Your task to perform on an android device: uninstall "Life360: Find Family & Friends" Image 0: 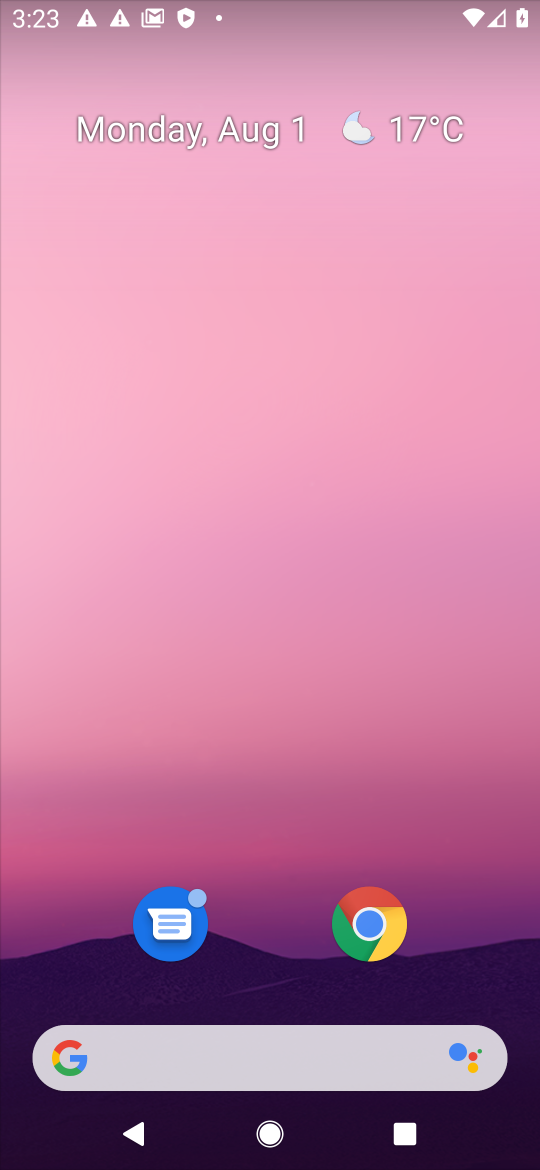
Step 0: drag from (314, 1151) to (317, 13)
Your task to perform on an android device: uninstall "Life360: Find Family & Friends" Image 1: 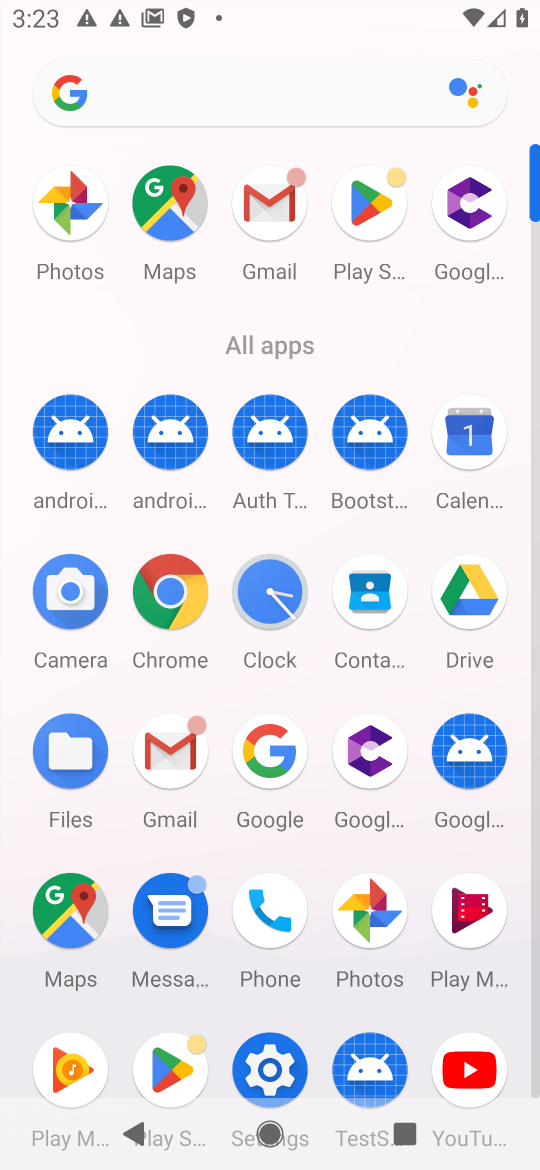
Step 1: click (367, 197)
Your task to perform on an android device: uninstall "Life360: Find Family & Friends" Image 2: 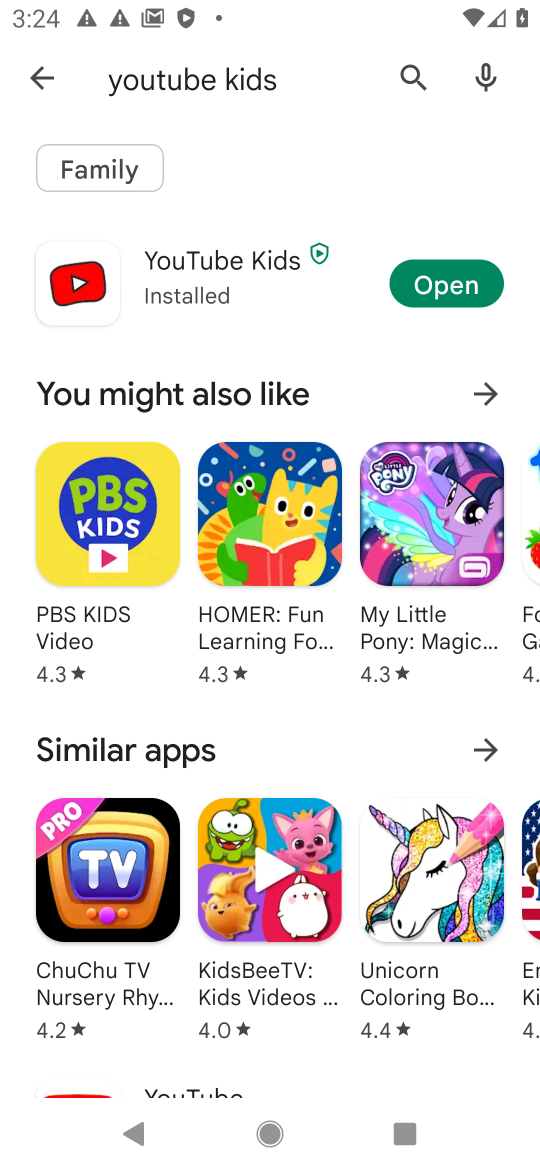
Step 2: click (401, 67)
Your task to perform on an android device: uninstall "Life360: Find Family & Friends" Image 3: 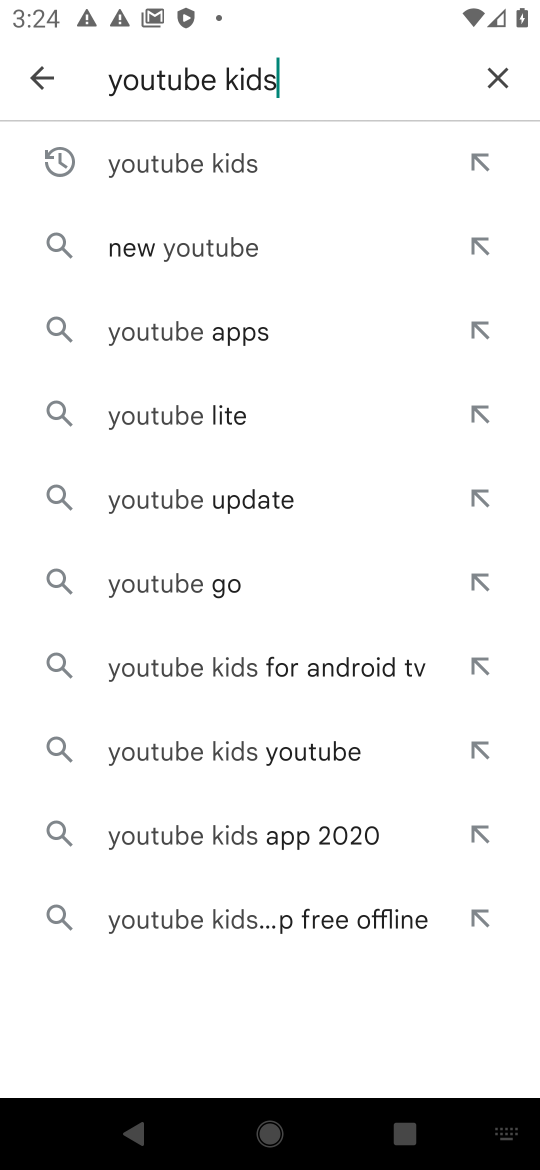
Step 3: click (500, 73)
Your task to perform on an android device: uninstall "Life360: Find Family & Friends" Image 4: 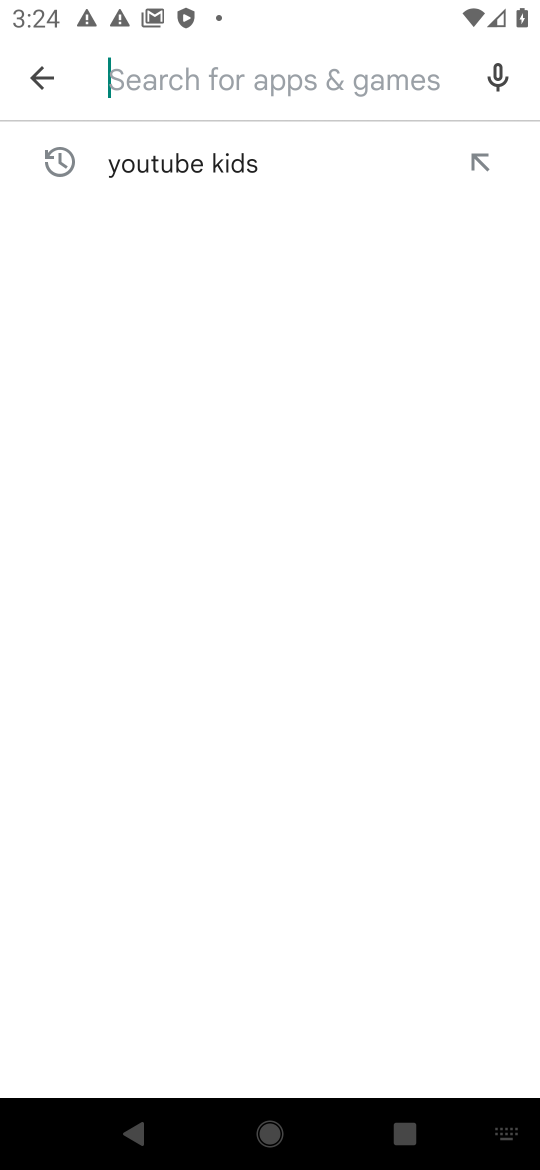
Step 4: type "Life360: Find Family & Friends"
Your task to perform on an android device: uninstall "Life360: Find Family & Friends" Image 5: 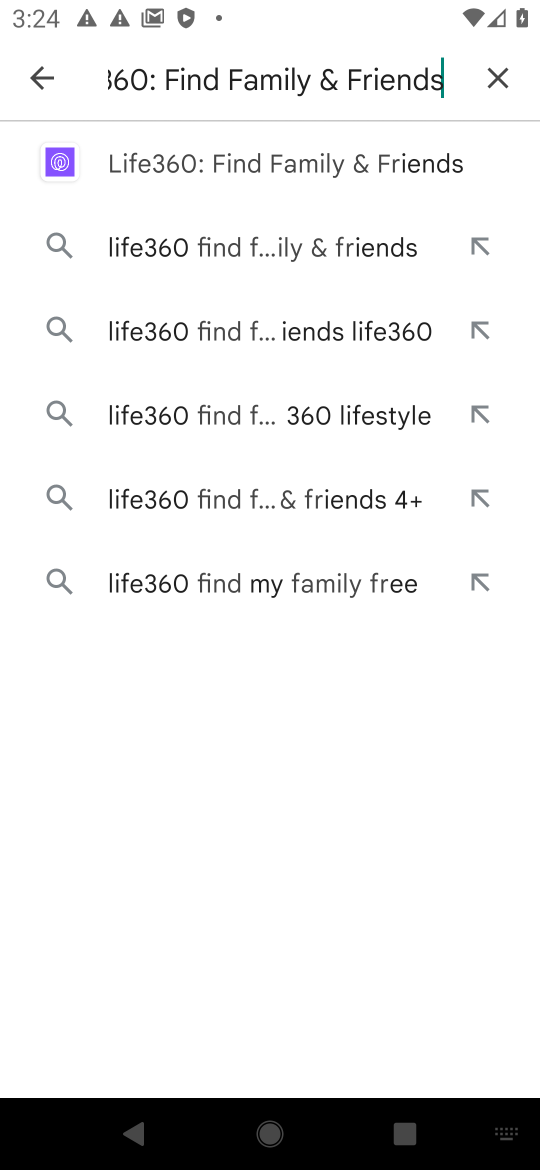
Step 5: type ""
Your task to perform on an android device: uninstall "Life360: Find Family & Friends" Image 6: 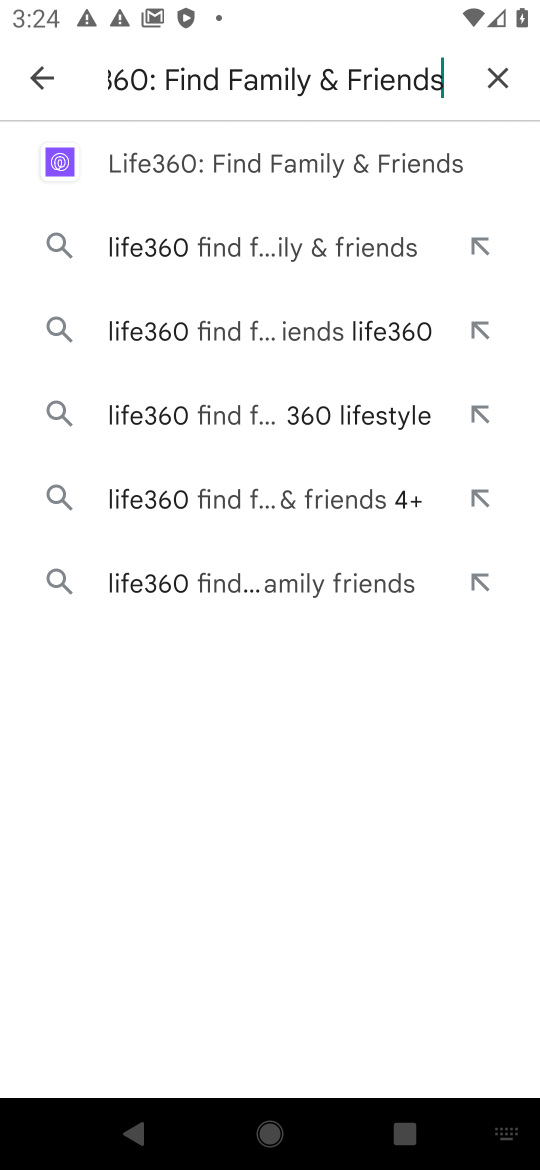
Step 6: click (233, 156)
Your task to perform on an android device: uninstall "Life360: Find Family & Friends" Image 7: 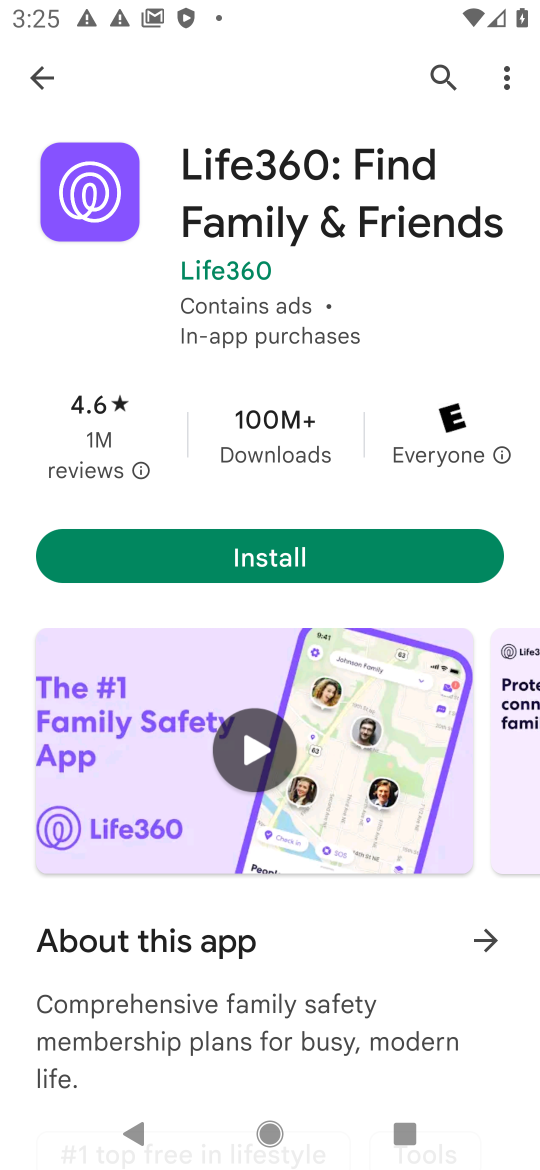
Step 7: task complete